Your task to perform on an android device: open app "Roku - Official Remote Control" (install if not already installed) Image 0: 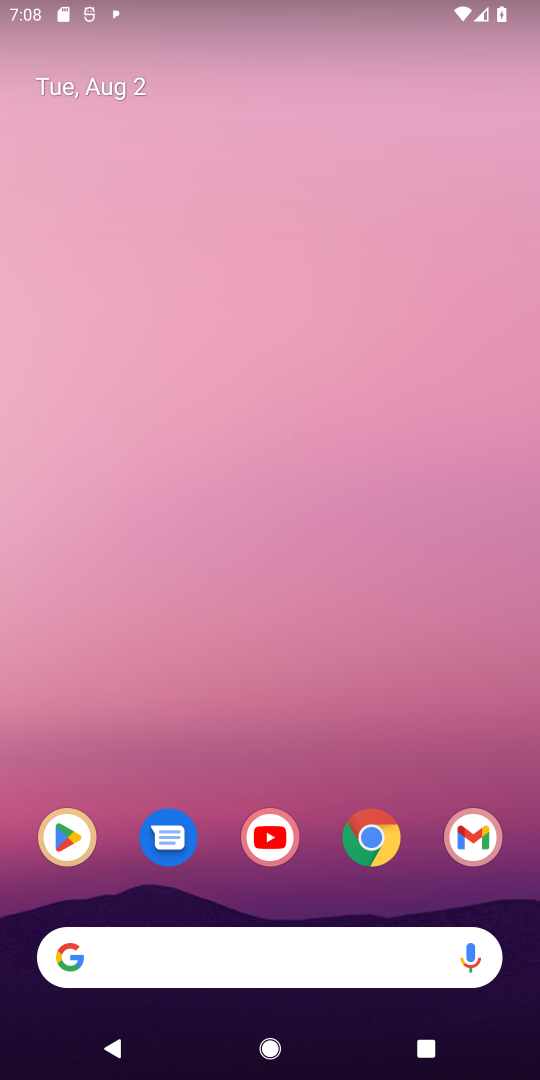
Step 0: click (78, 833)
Your task to perform on an android device: open app "Roku - Official Remote Control" (install if not already installed) Image 1: 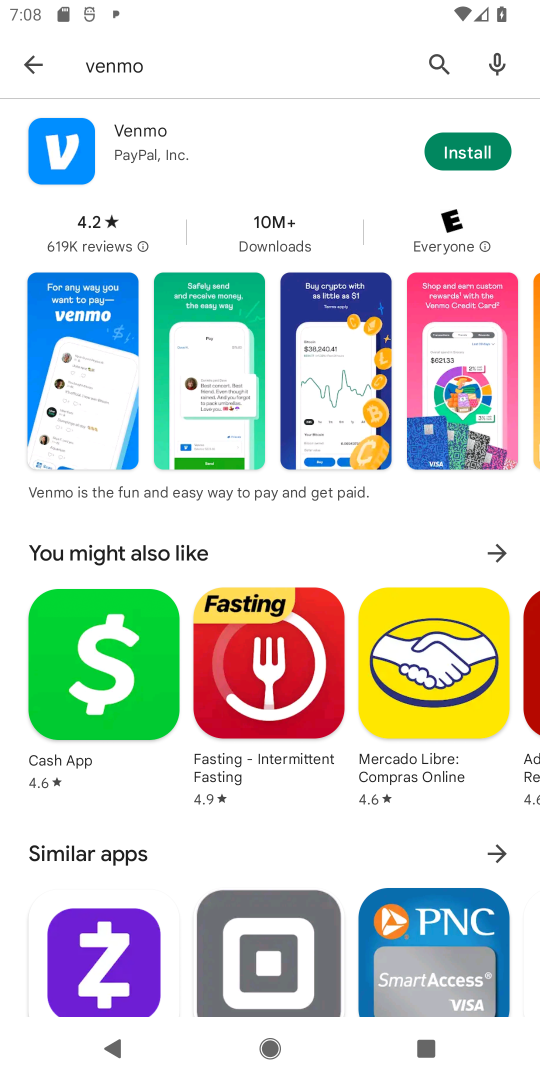
Step 1: click (428, 65)
Your task to perform on an android device: open app "Roku - Official Remote Control" (install if not already installed) Image 2: 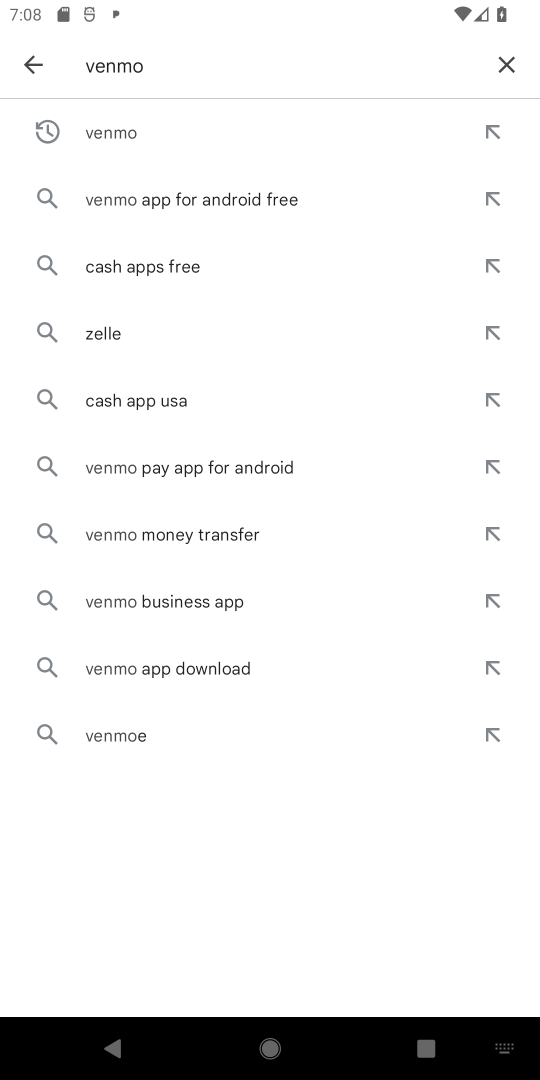
Step 2: click (497, 68)
Your task to perform on an android device: open app "Roku - Official Remote Control" (install if not already installed) Image 3: 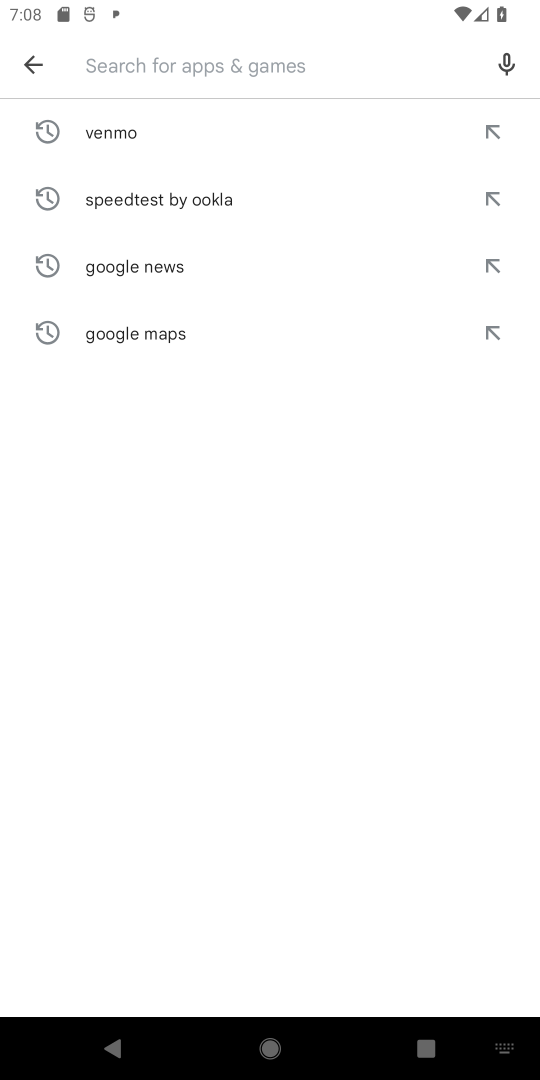
Step 3: type "Roku - Official Remote Control"
Your task to perform on an android device: open app "Roku - Official Remote Control" (install if not already installed) Image 4: 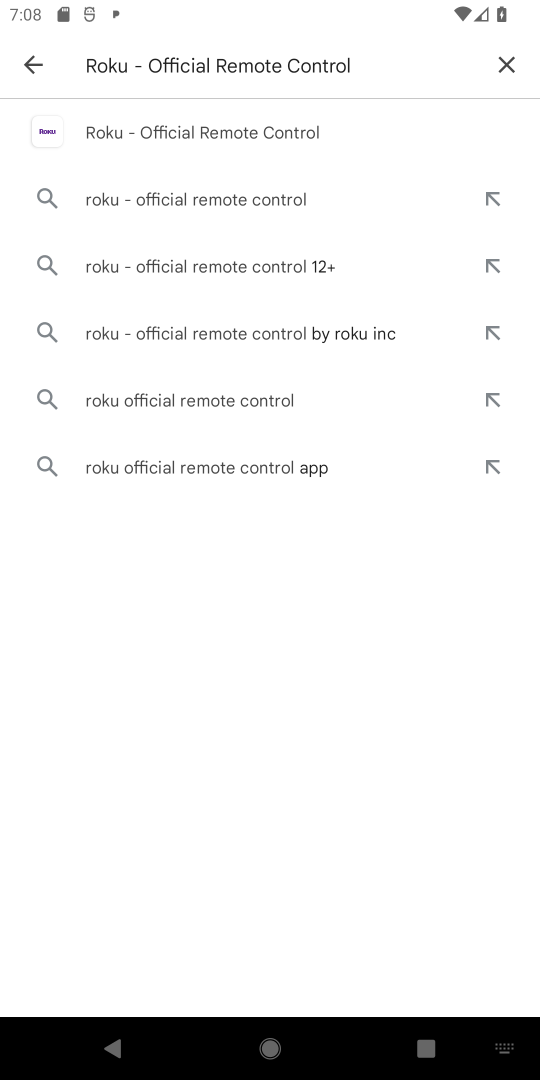
Step 4: click (184, 130)
Your task to perform on an android device: open app "Roku - Official Remote Control" (install if not already installed) Image 5: 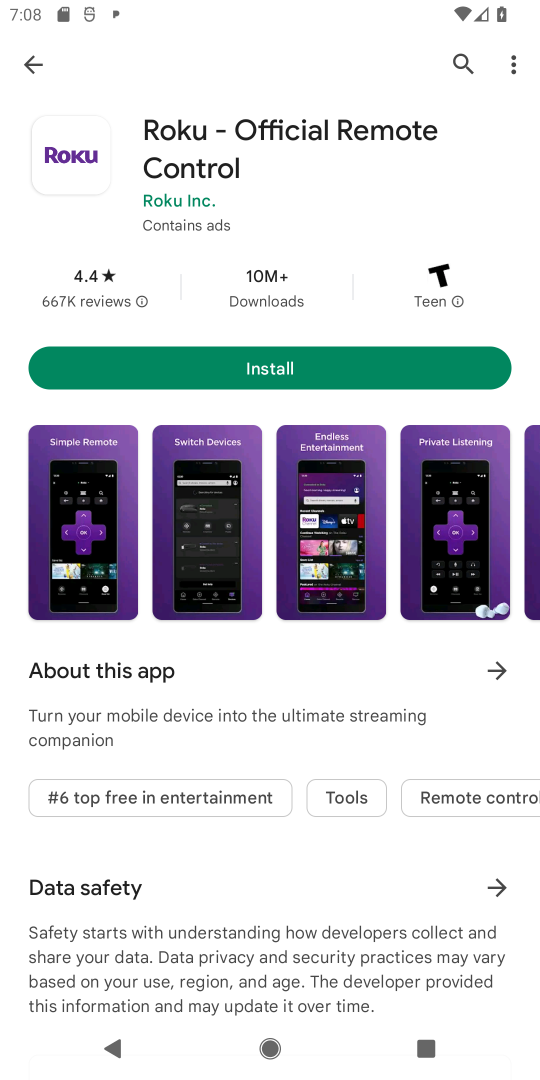
Step 5: click (232, 377)
Your task to perform on an android device: open app "Roku - Official Remote Control" (install if not already installed) Image 6: 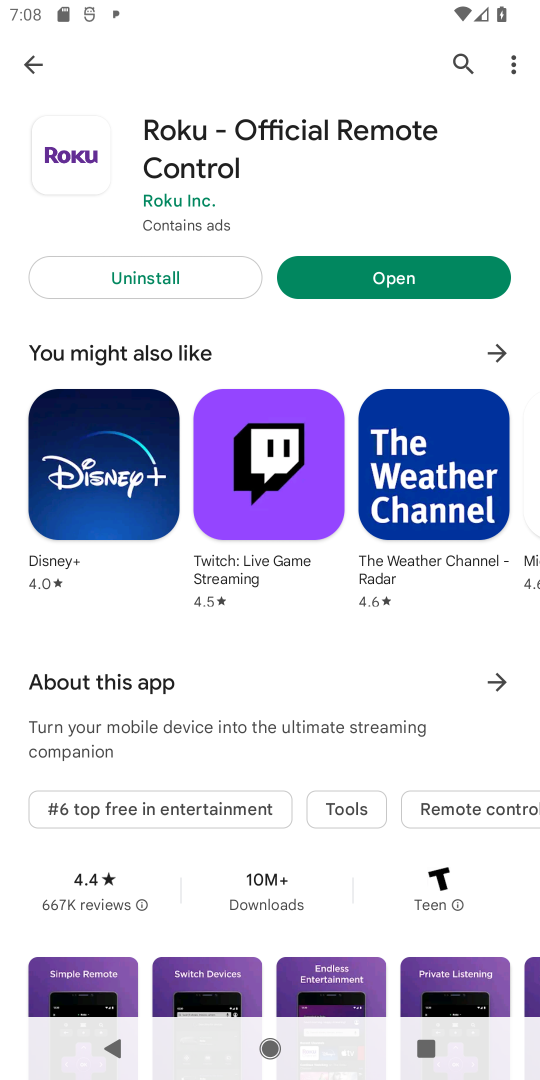
Step 6: click (364, 287)
Your task to perform on an android device: open app "Roku - Official Remote Control" (install if not already installed) Image 7: 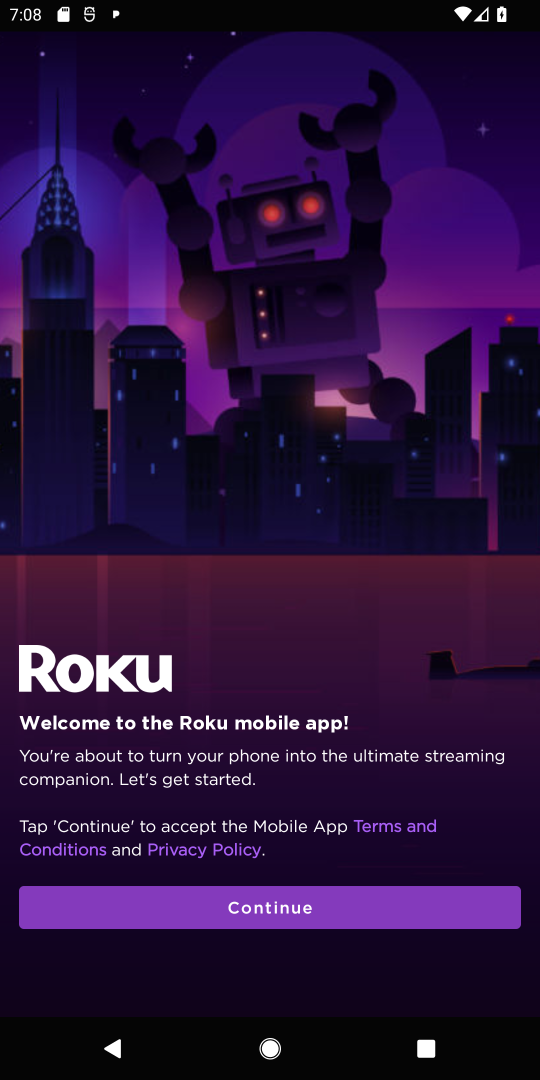
Step 7: task complete